Your task to perform on an android device: toggle improve location accuracy Image 0: 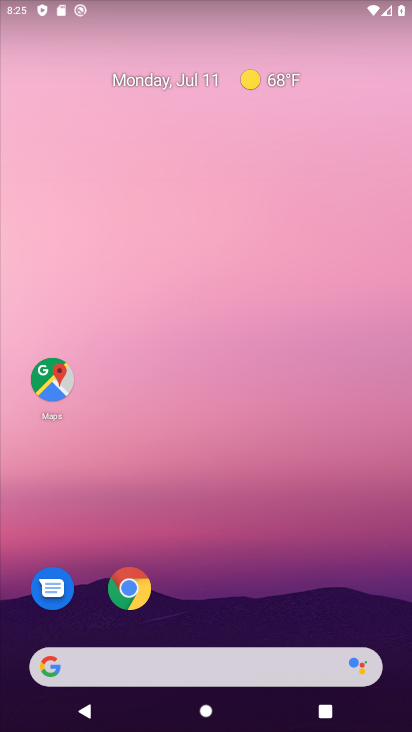
Step 0: drag from (210, 624) to (186, 85)
Your task to perform on an android device: toggle improve location accuracy Image 1: 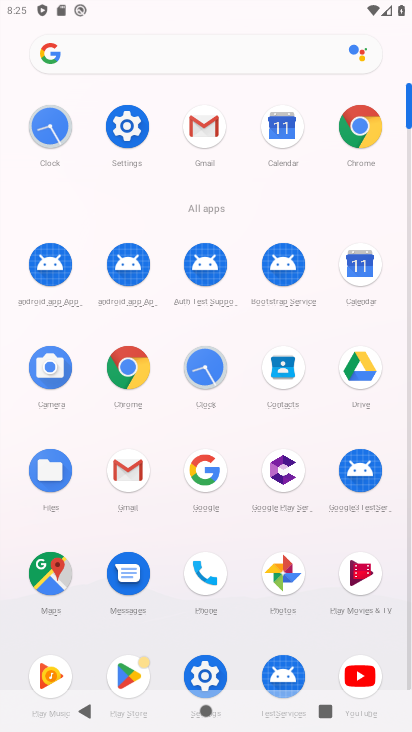
Step 1: click (203, 663)
Your task to perform on an android device: toggle improve location accuracy Image 2: 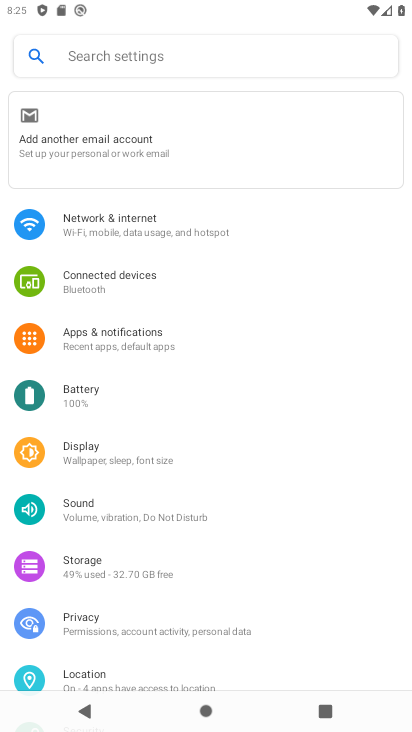
Step 2: drag from (225, 573) to (205, 203)
Your task to perform on an android device: toggle improve location accuracy Image 3: 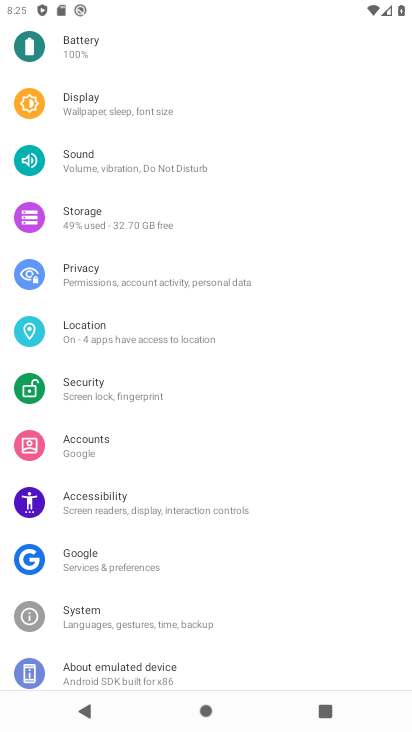
Step 3: click (35, 327)
Your task to perform on an android device: toggle improve location accuracy Image 4: 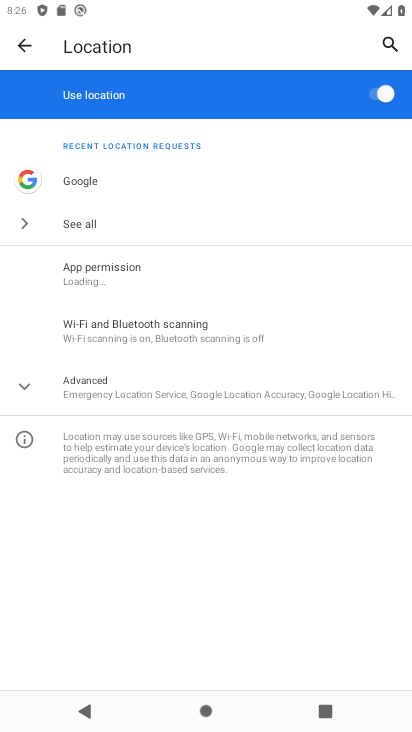
Step 4: click (120, 383)
Your task to perform on an android device: toggle improve location accuracy Image 5: 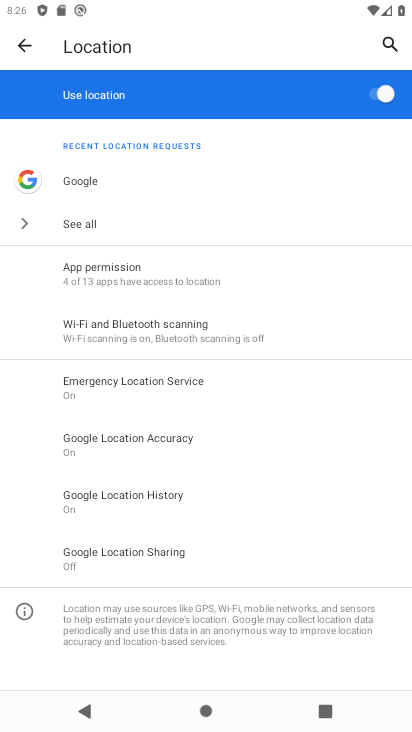
Step 5: click (163, 441)
Your task to perform on an android device: toggle improve location accuracy Image 6: 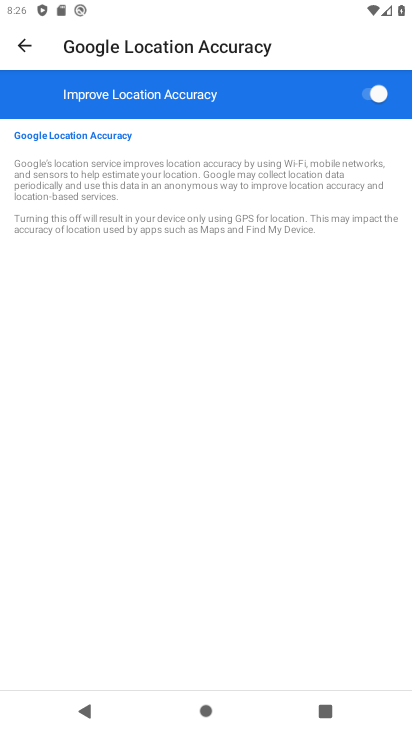
Step 6: click (383, 86)
Your task to perform on an android device: toggle improve location accuracy Image 7: 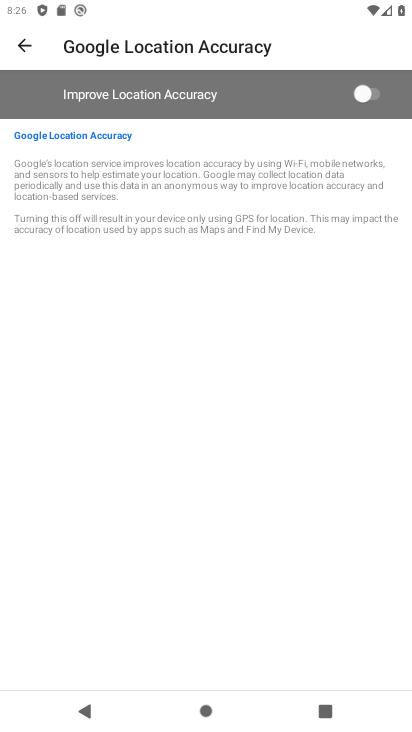
Step 7: task complete